Your task to perform on an android device: Open Google Maps Image 0: 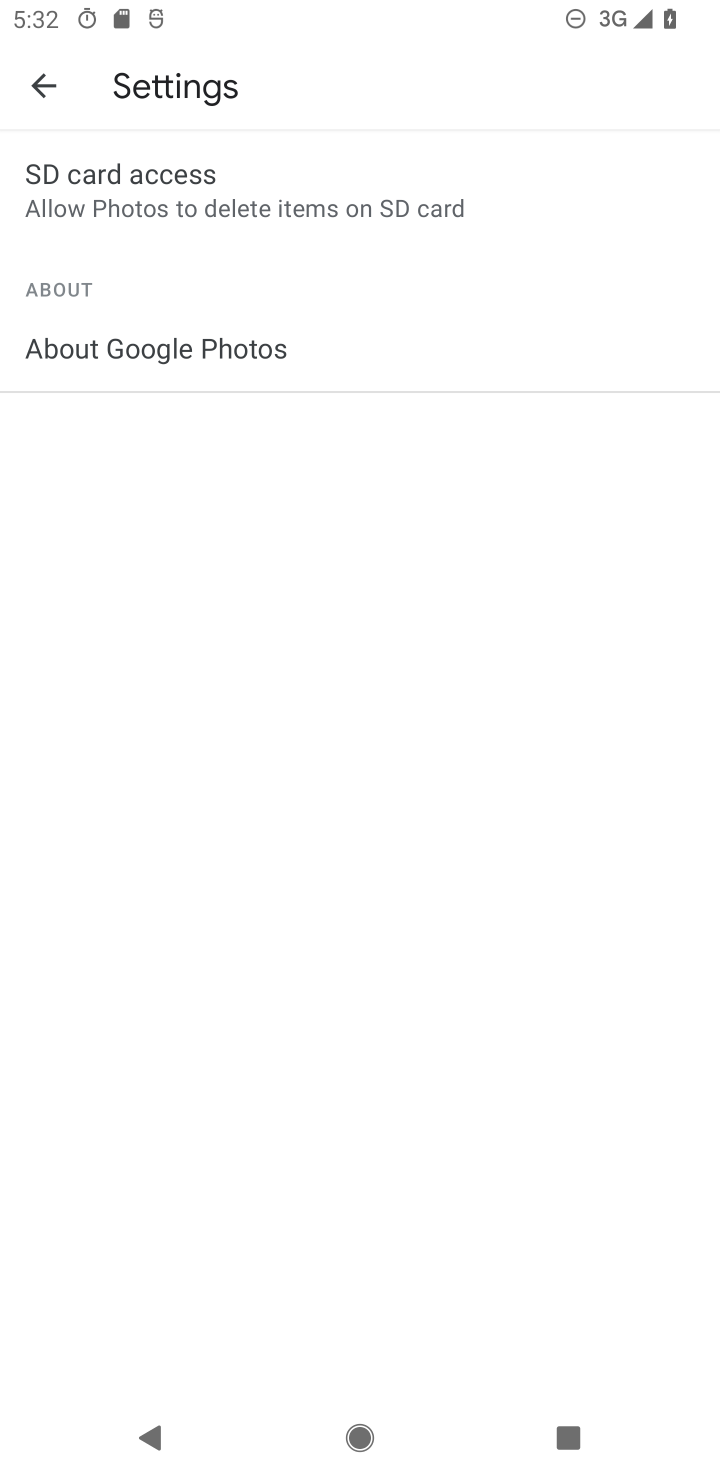
Step 0: click (703, 749)
Your task to perform on an android device: Open Google Maps Image 1: 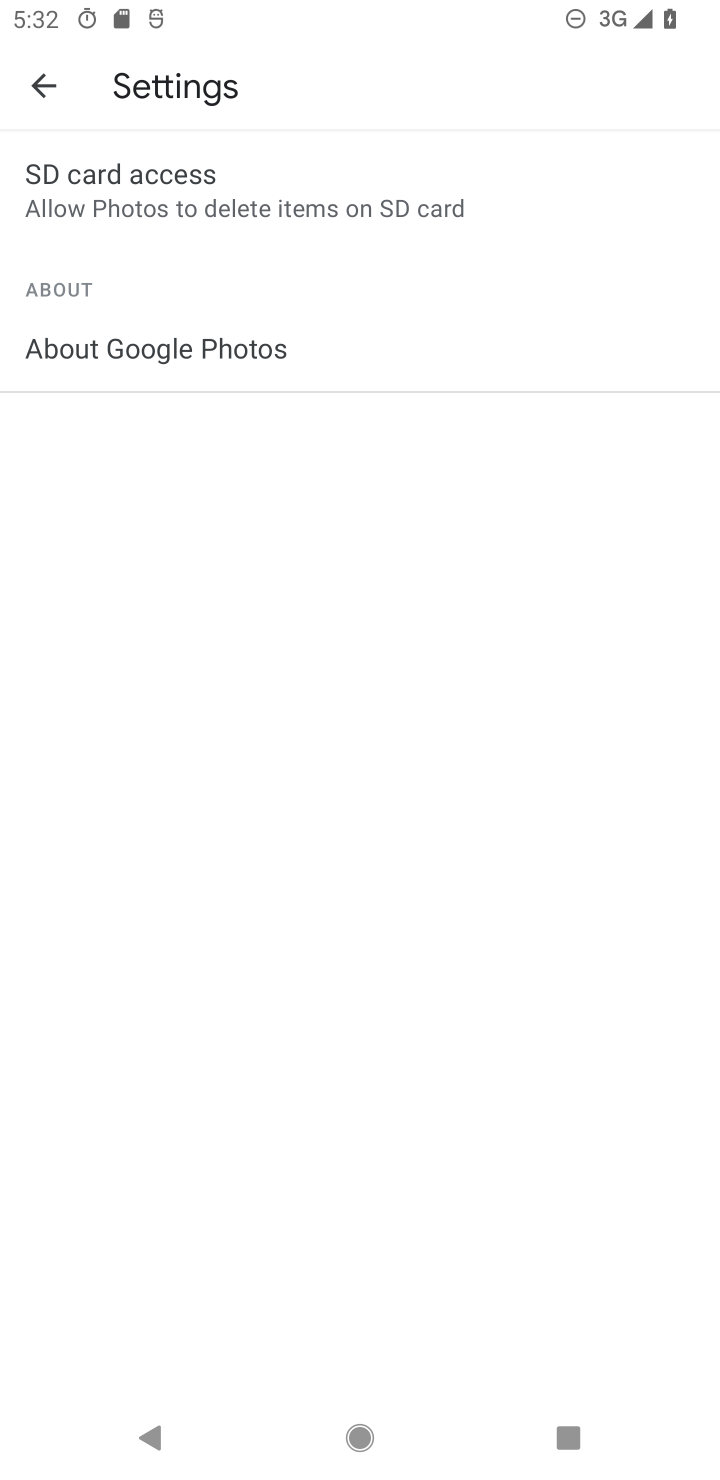
Step 1: press home button
Your task to perform on an android device: Open Google Maps Image 2: 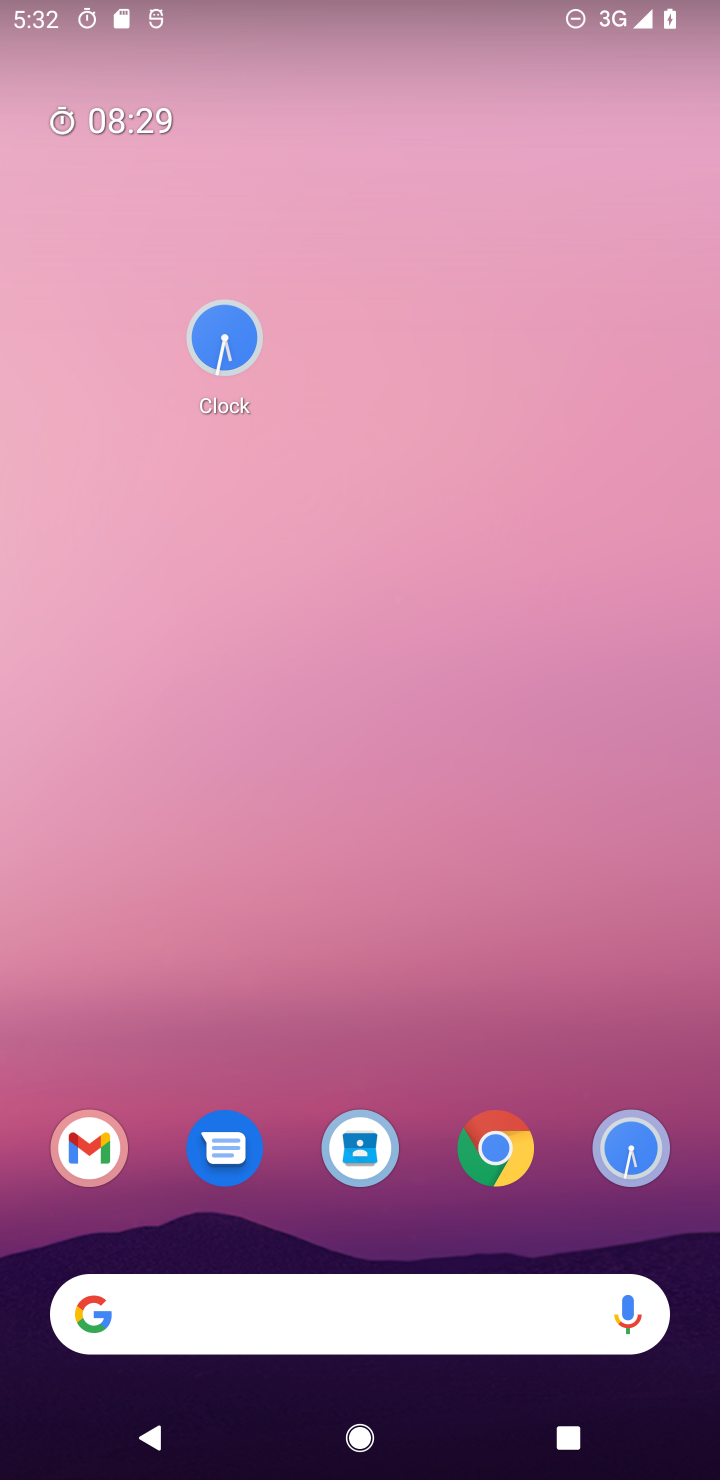
Step 2: drag from (349, 1198) to (387, 373)
Your task to perform on an android device: Open Google Maps Image 3: 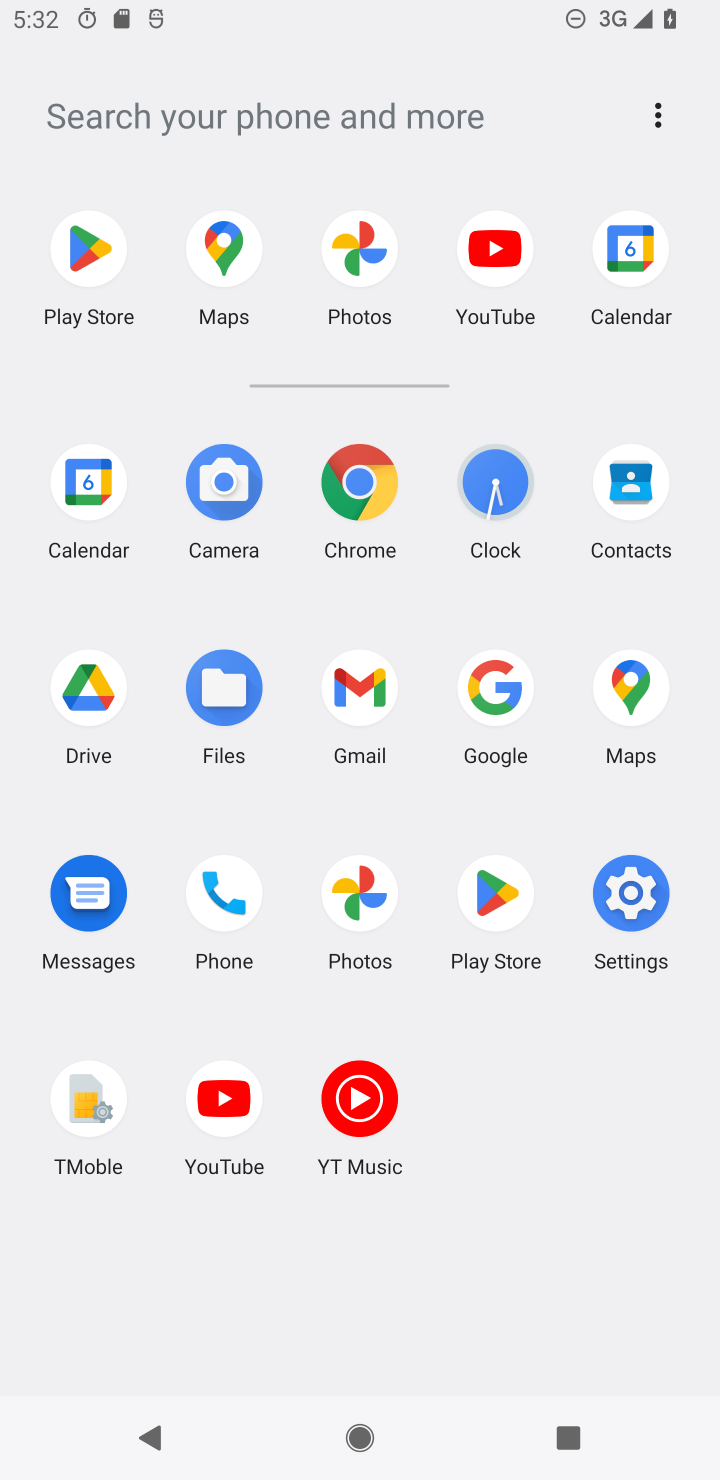
Step 3: click (616, 688)
Your task to perform on an android device: Open Google Maps Image 4: 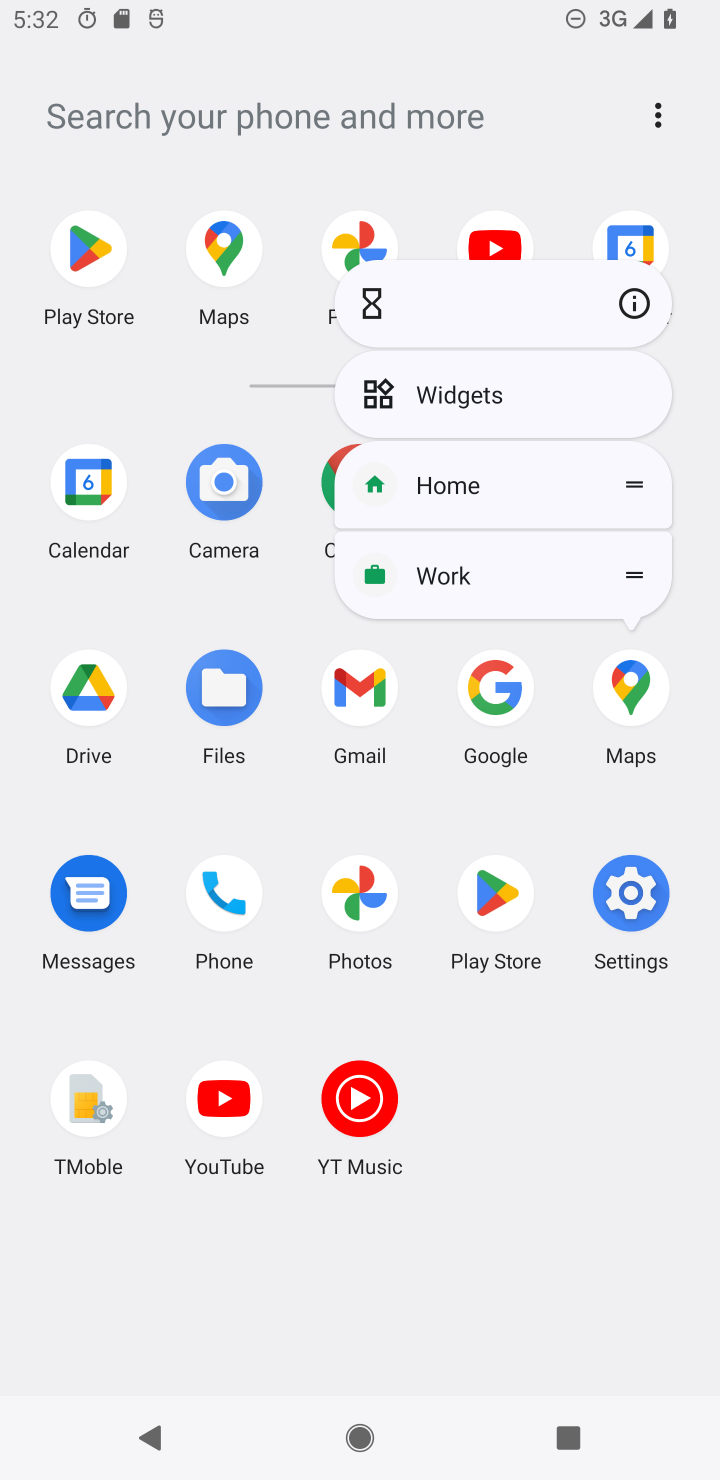
Step 4: click (624, 297)
Your task to perform on an android device: Open Google Maps Image 5: 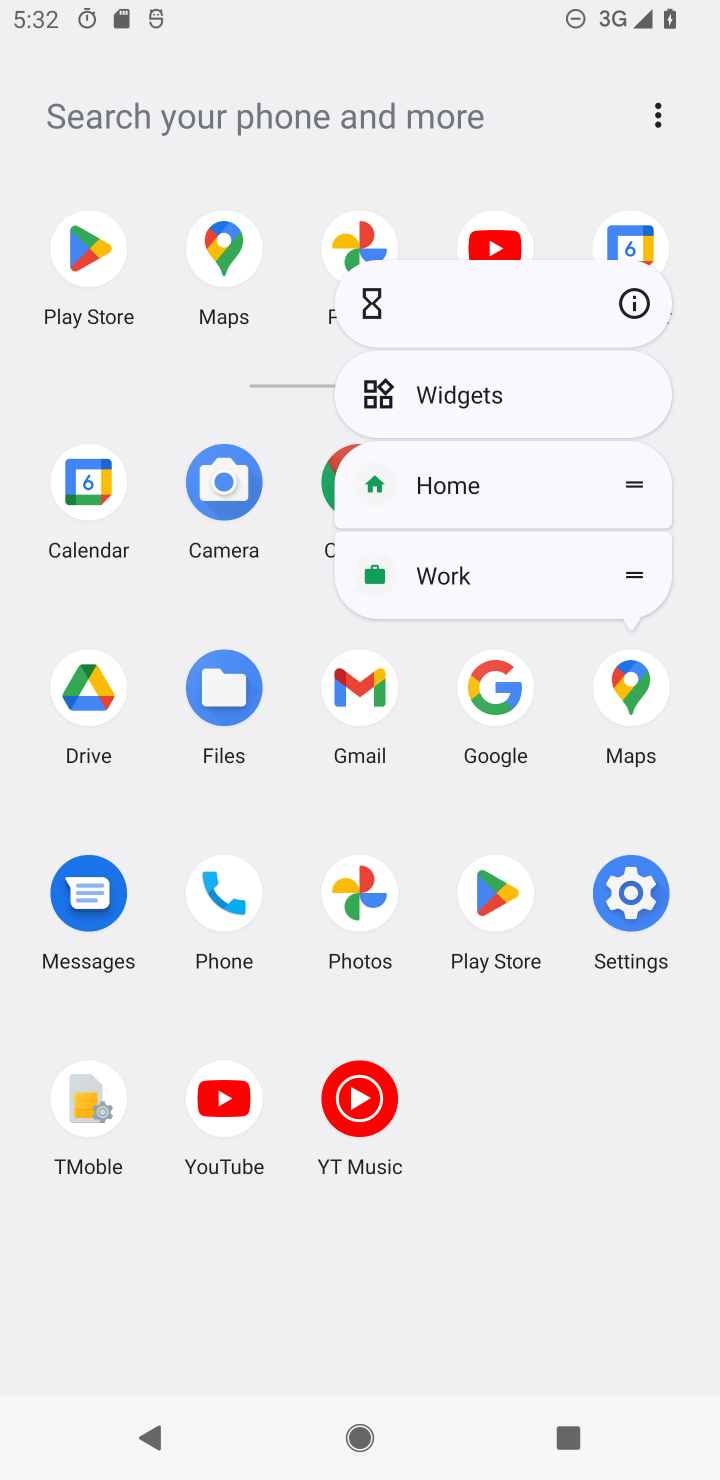
Step 5: click (626, 295)
Your task to perform on an android device: Open Google Maps Image 6: 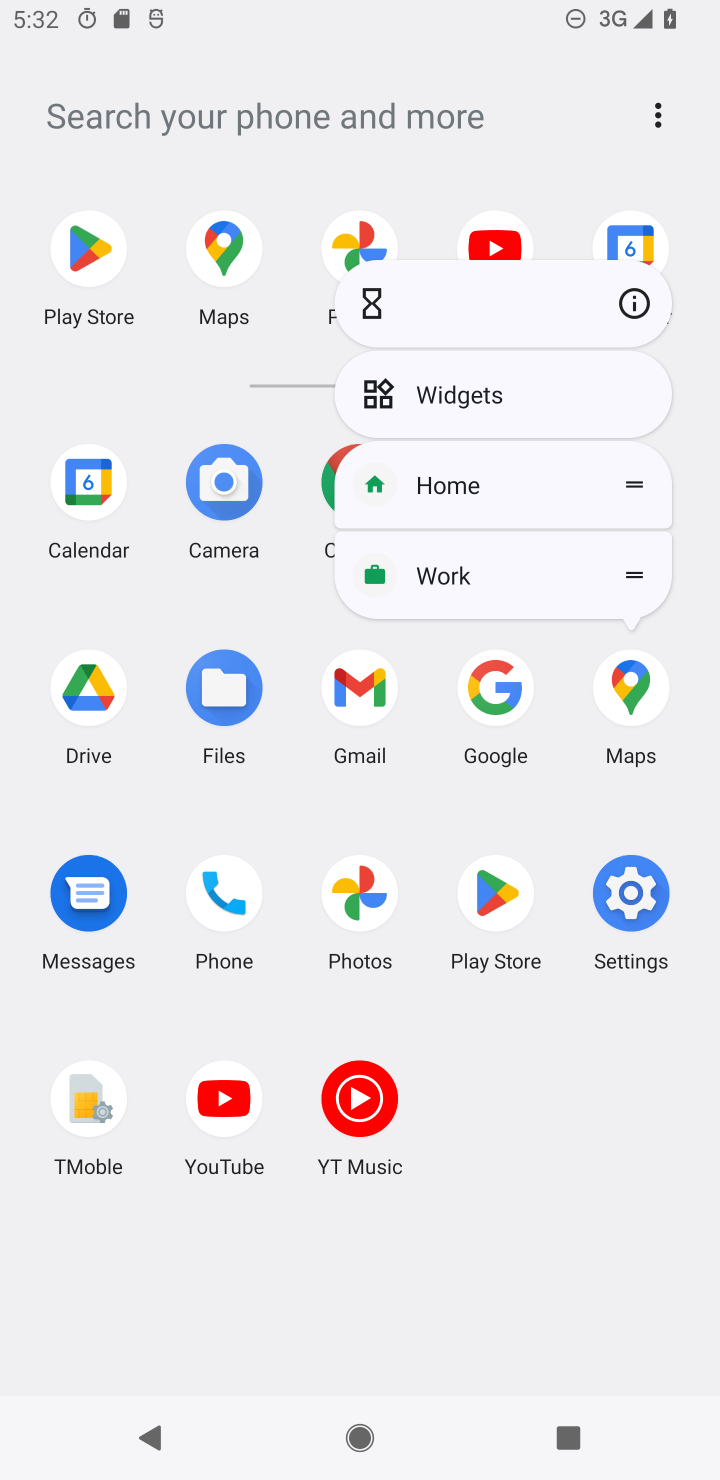
Step 6: click (639, 319)
Your task to perform on an android device: Open Google Maps Image 7: 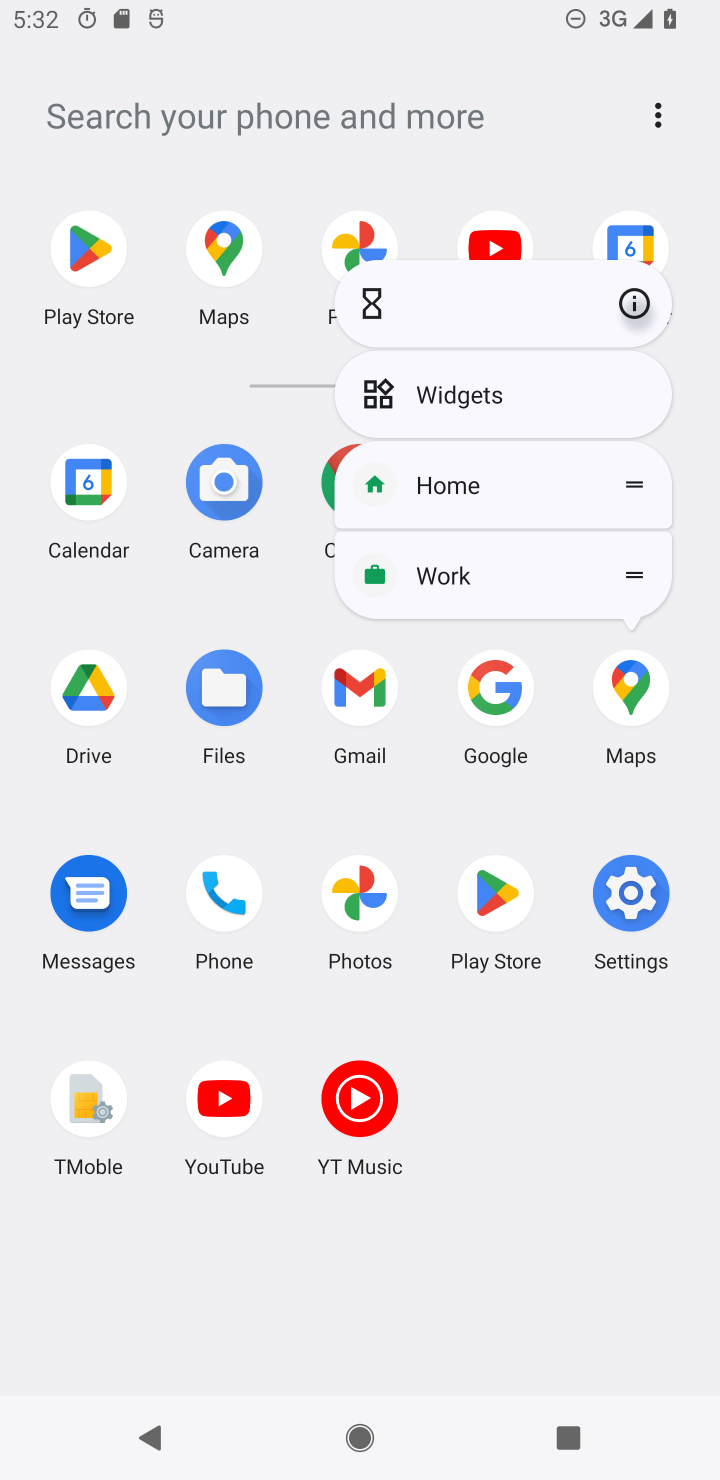
Step 7: click (639, 319)
Your task to perform on an android device: Open Google Maps Image 8: 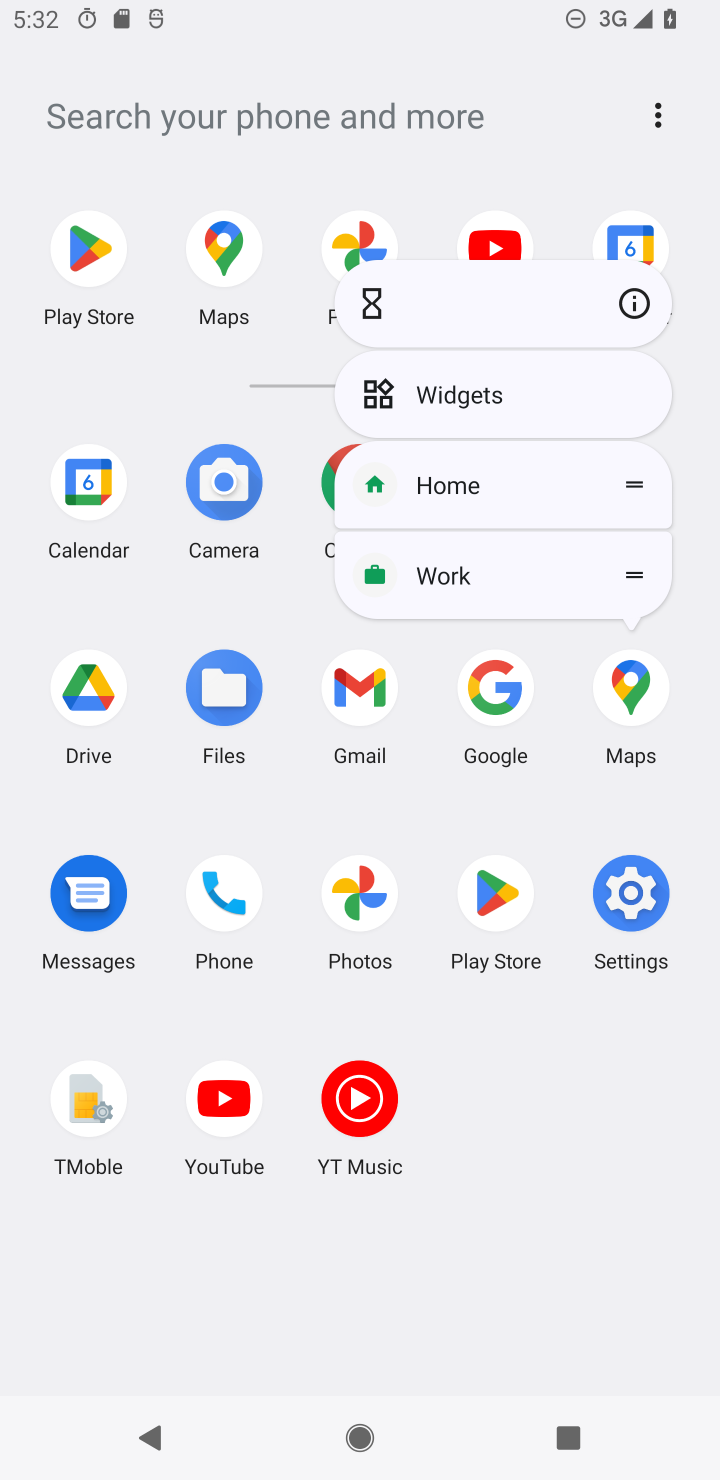
Step 8: click (637, 312)
Your task to perform on an android device: Open Google Maps Image 9: 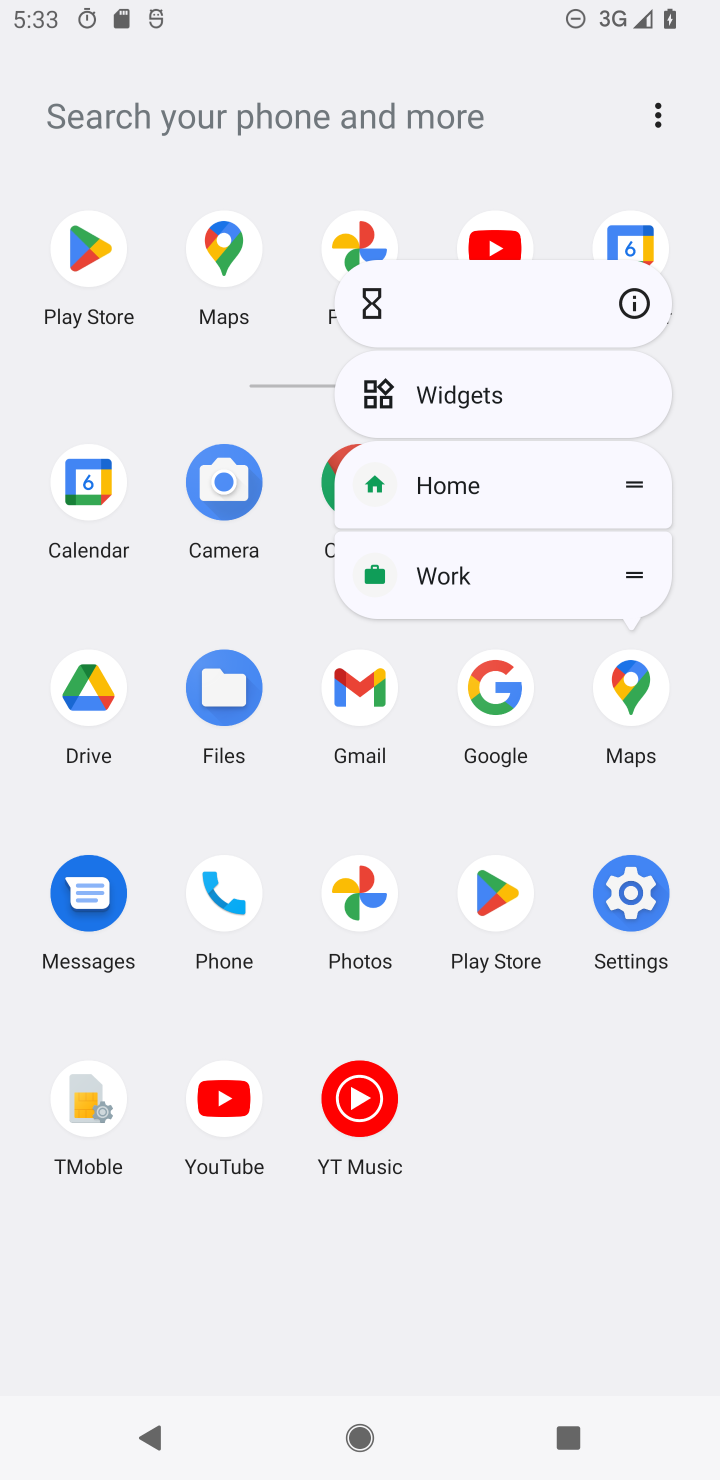
Step 9: click (627, 318)
Your task to perform on an android device: Open Google Maps Image 10: 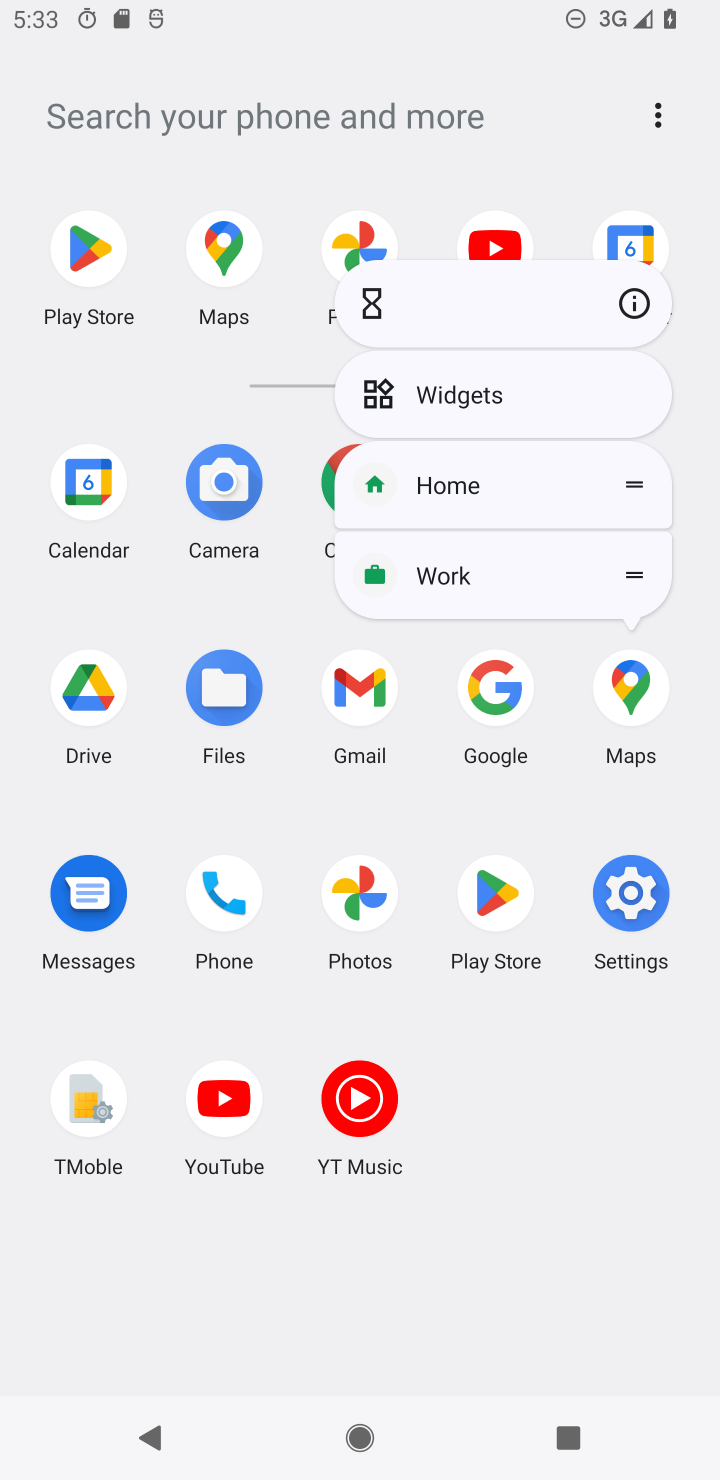
Step 10: click (637, 312)
Your task to perform on an android device: Open Google Maps Image 11: 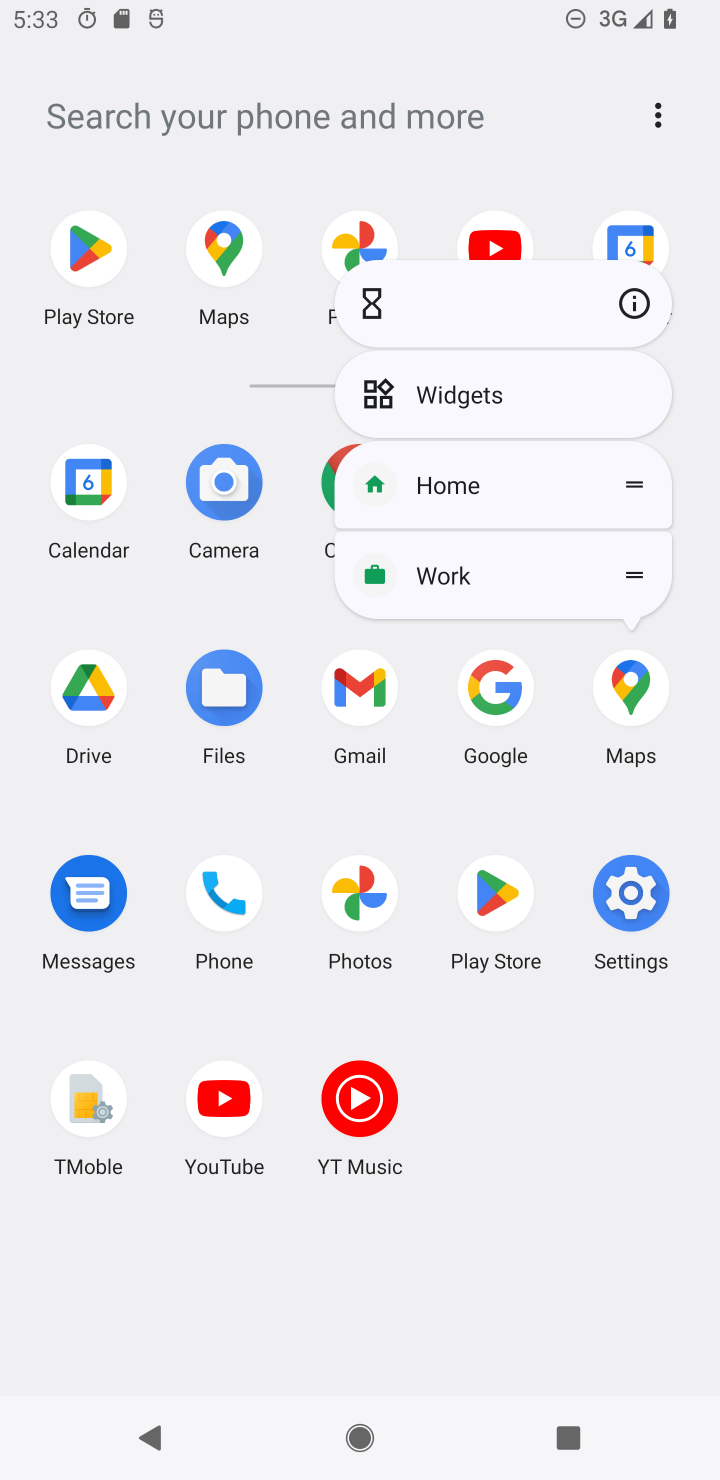
Step 11: click (642, 672)
Your task to perform on an android device: Open Google Maps Image 12: 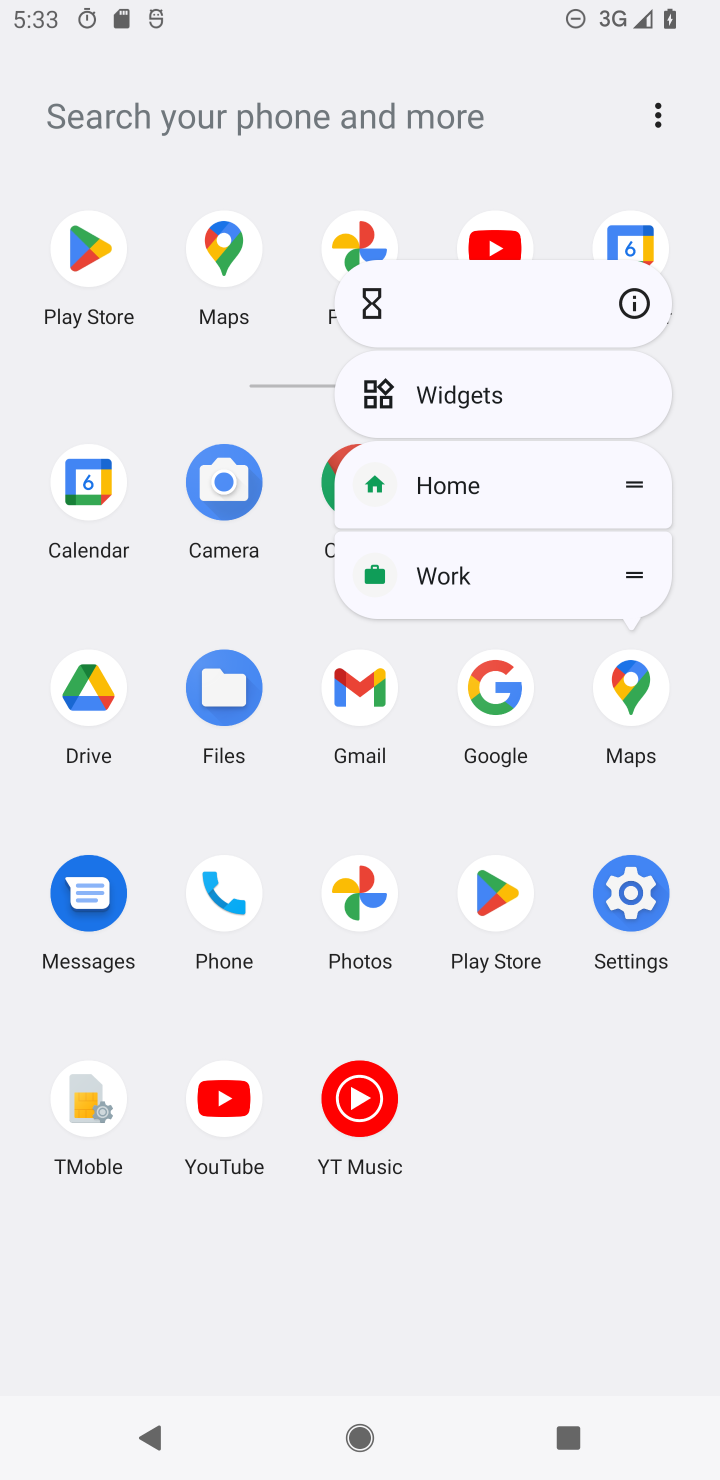
Step 12: click (615, 705)
Your task to perform on an android device: Open Google Maps Image 13: 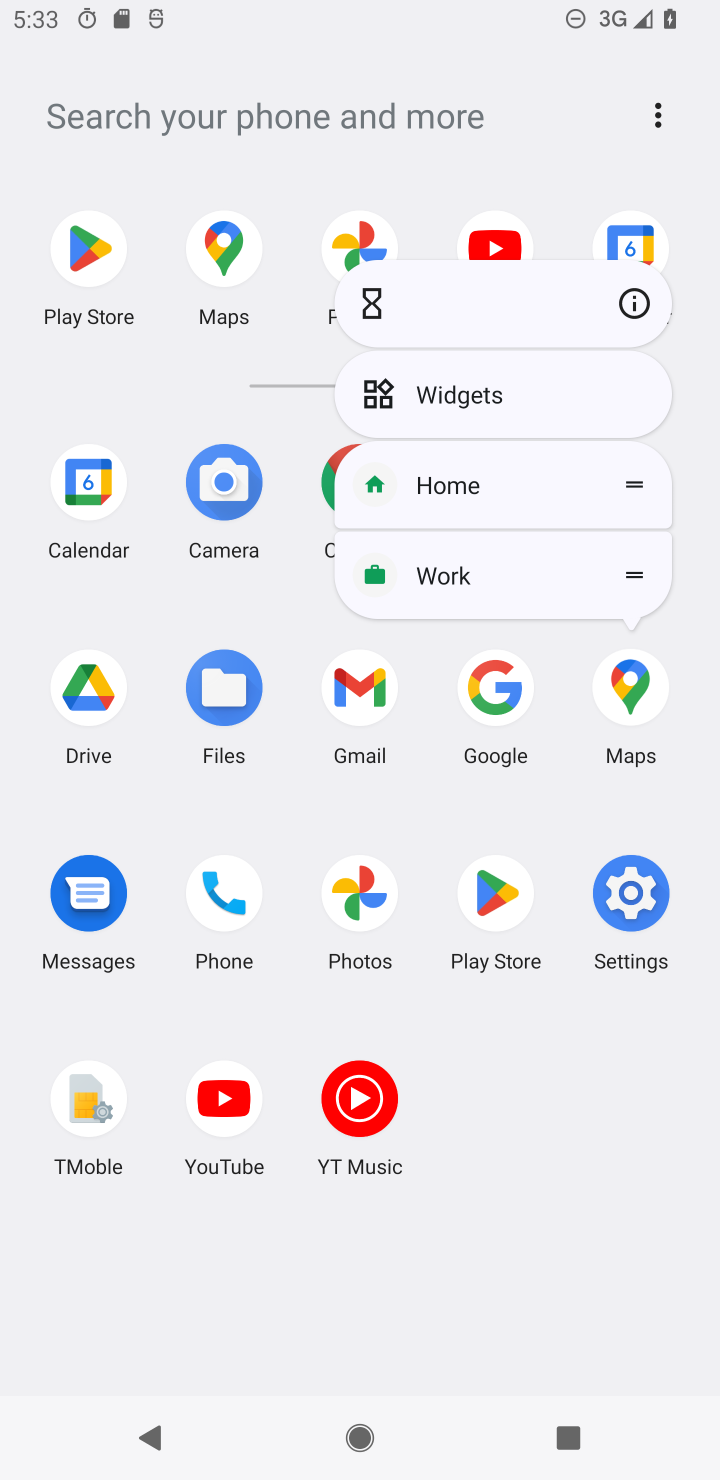
Step 13: click (611, 696)
Your task to perform on an android device: Open Google Maps Image 14: 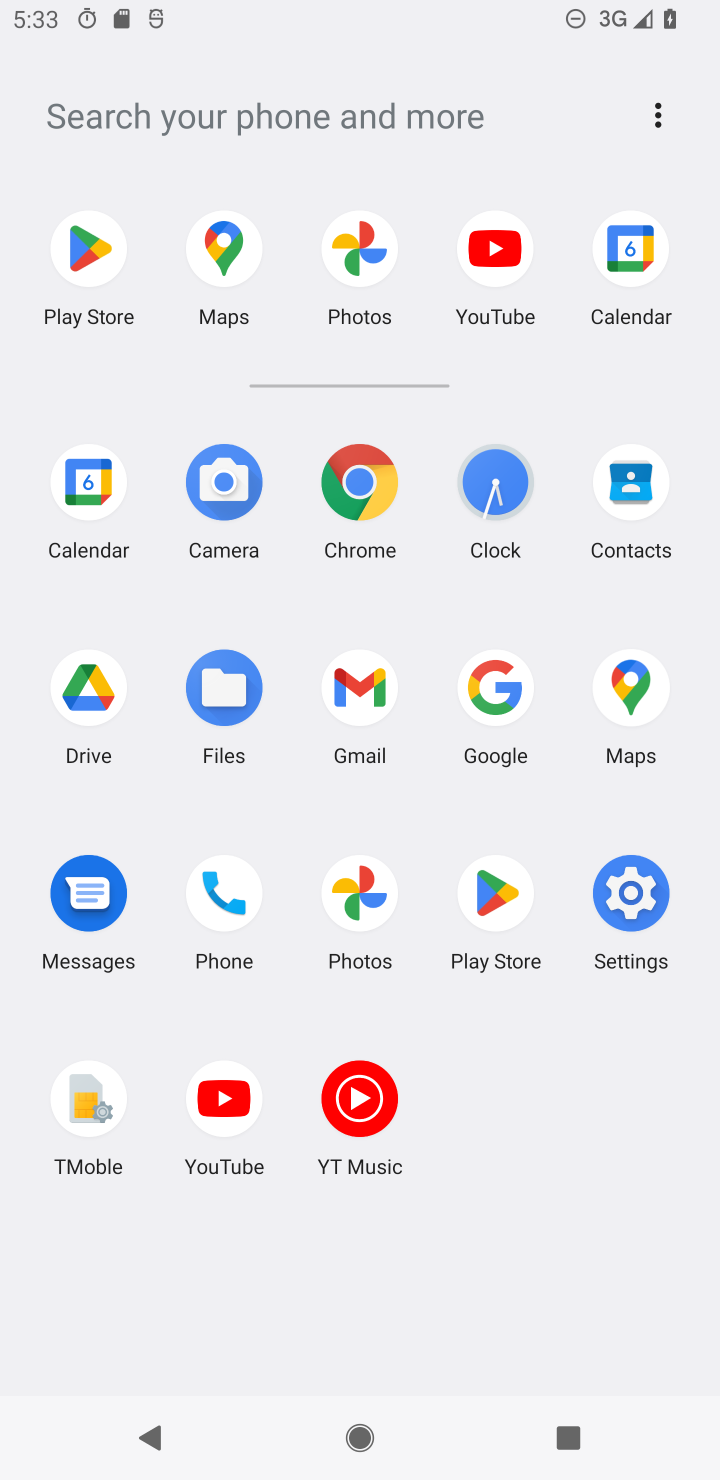
Step 14: click (604, 690)
Your task to perform on an android device: Open Google Maps Image 15: 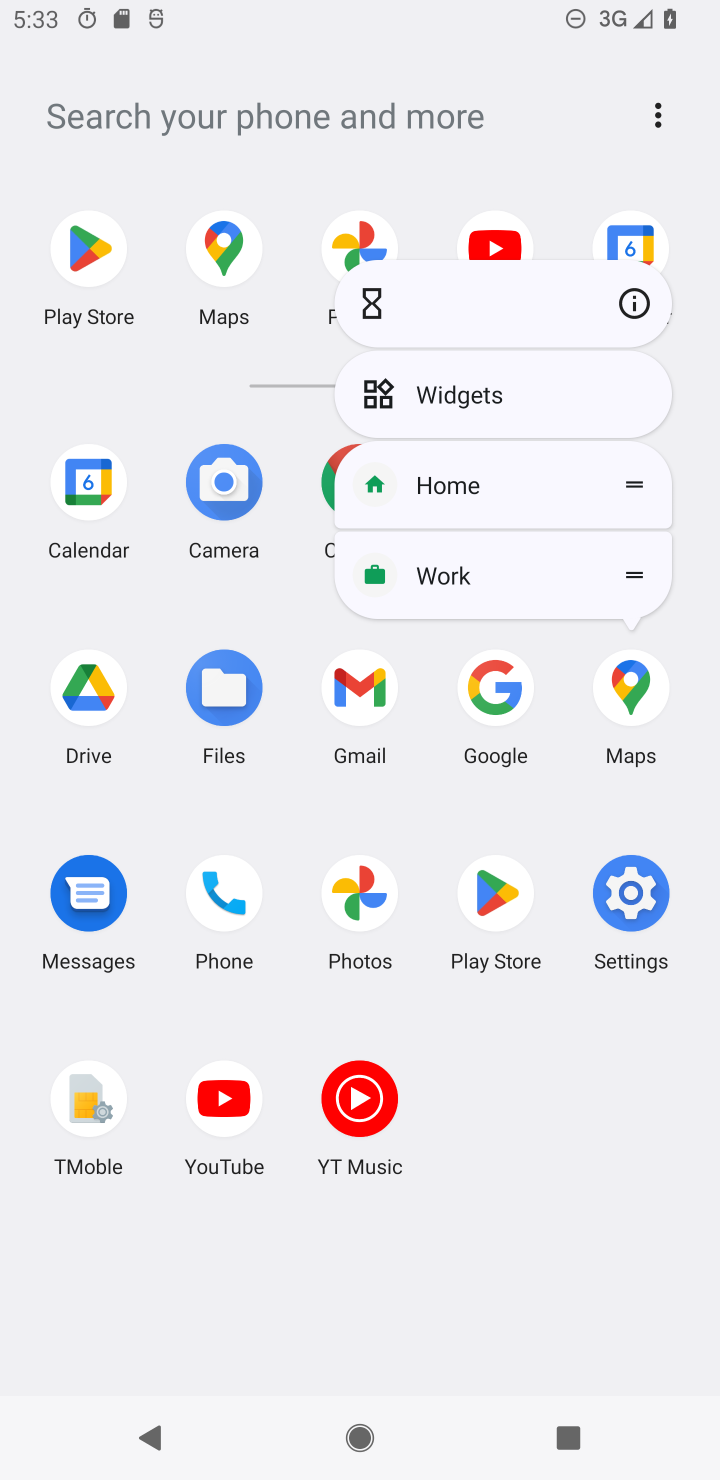
Step 15: click (631, 309)
Your task to perform on an android device: Open Google Maps Image 16: 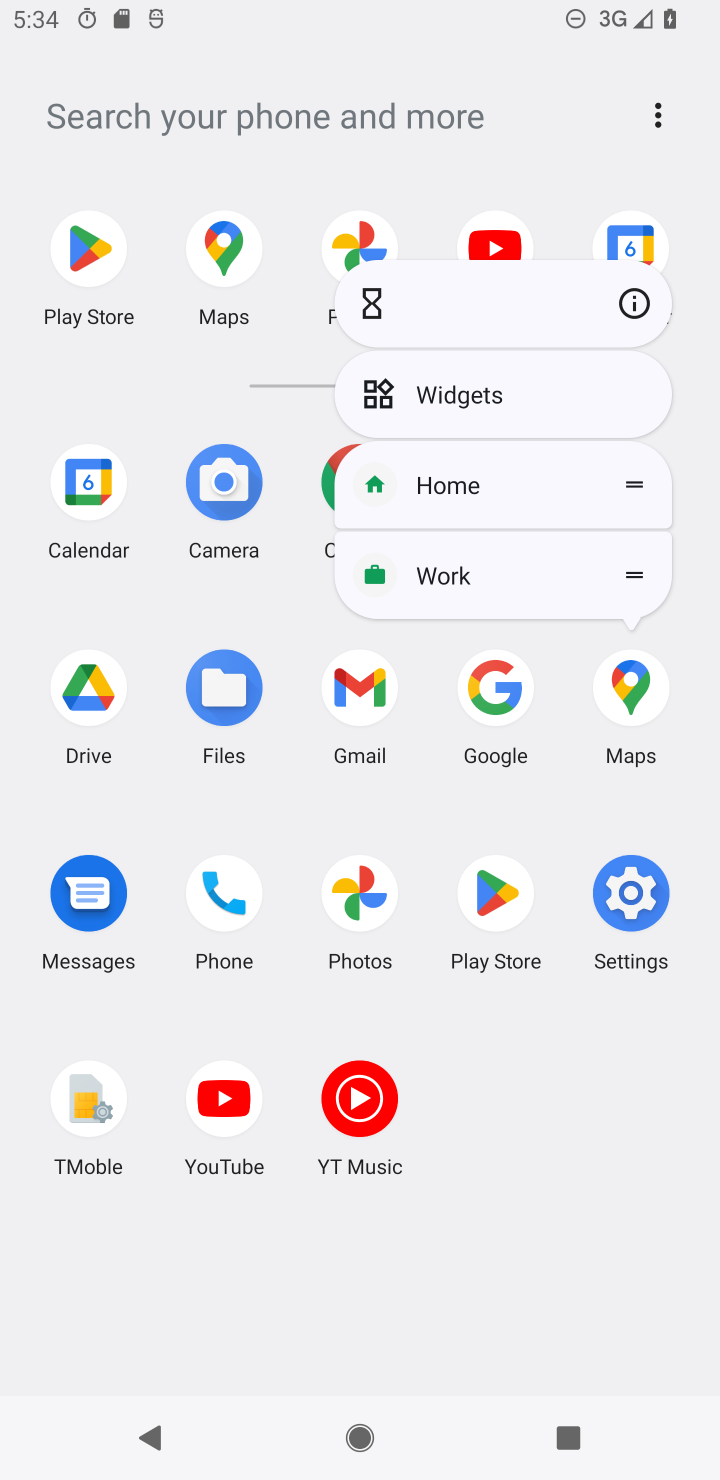
Step 16: click (639, 679)
Your task to perform on an android device: Open Google Maps Image 17: 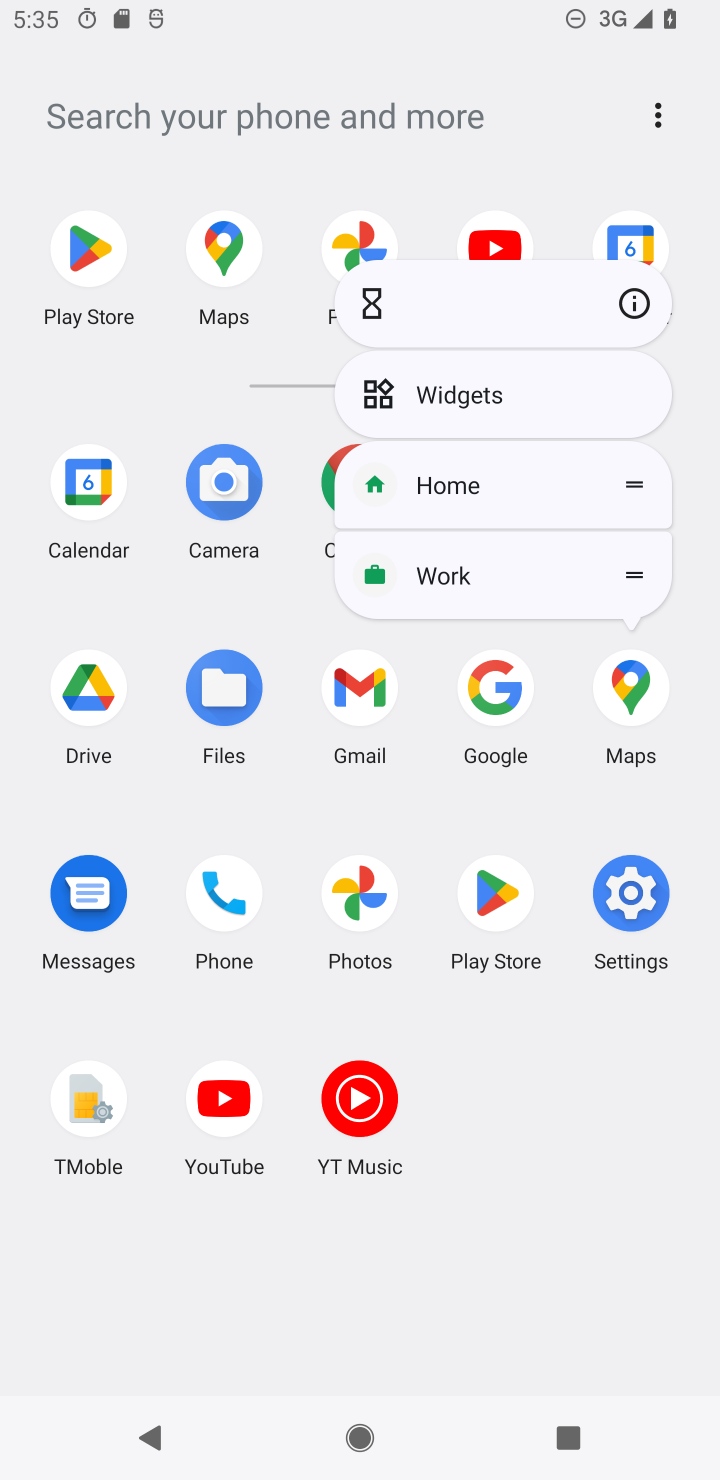
Step 17: click (610, 693)
Your task to perform on an android device: Open Google Maps Image 18: 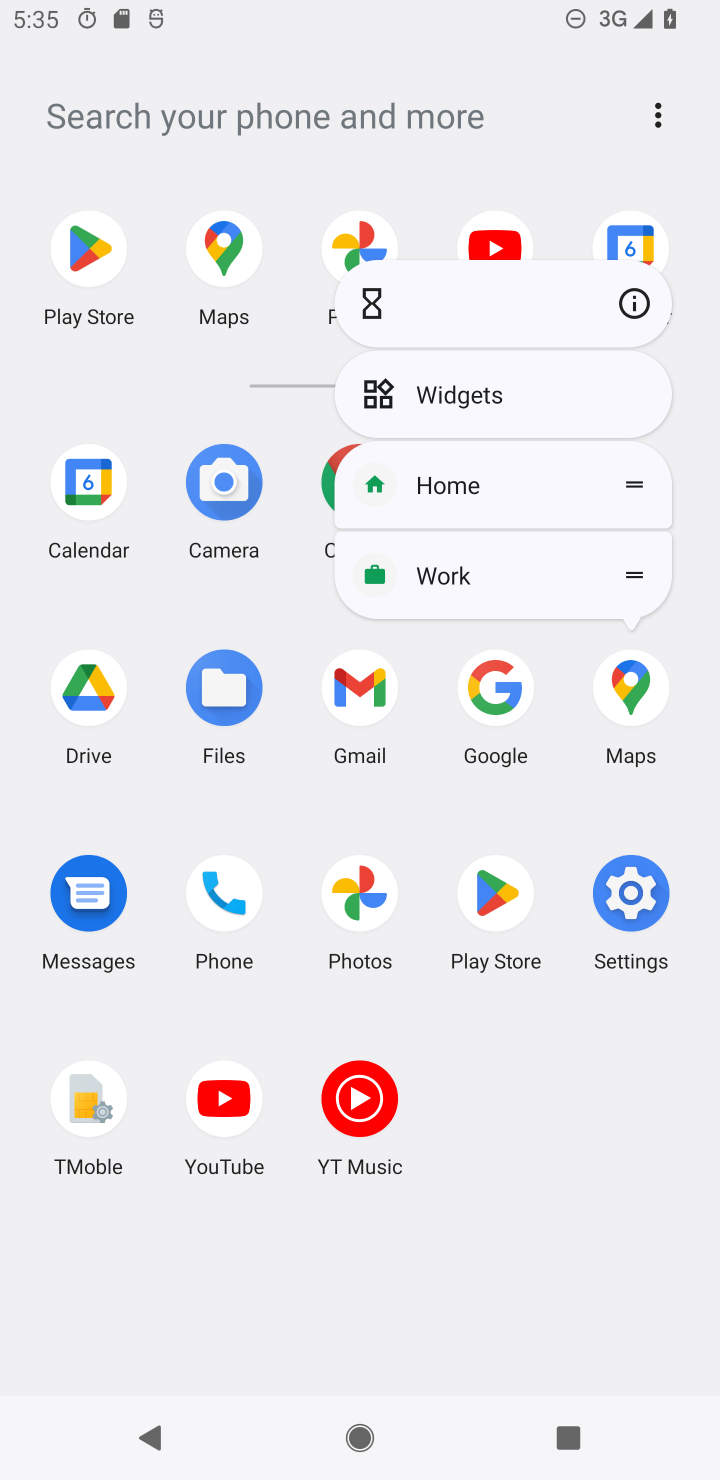
Step 18: click (648, 659)
Your task to perform on an android device: Open Google Maps Image 19: 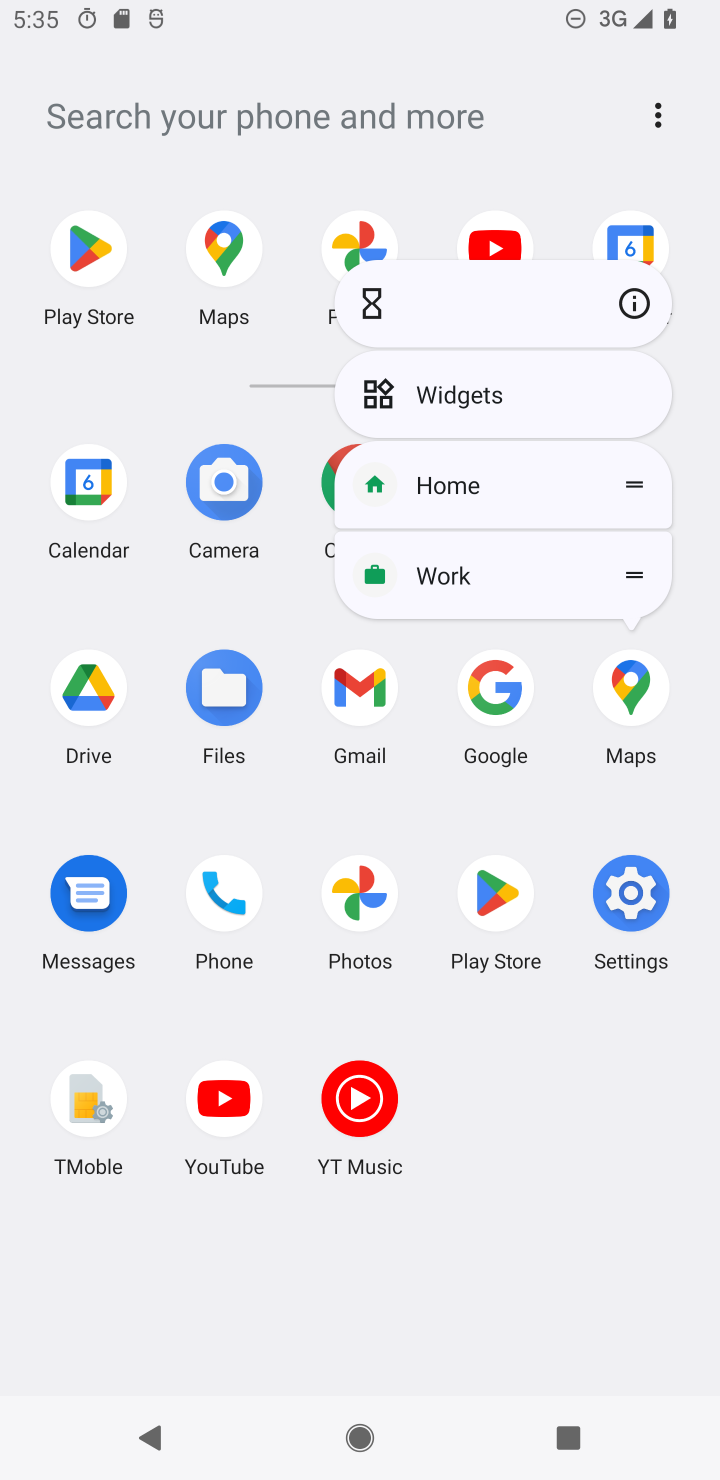
Step 19: click (644, 667)
Your task to perform on an android device: Open Google Maps Image 20: 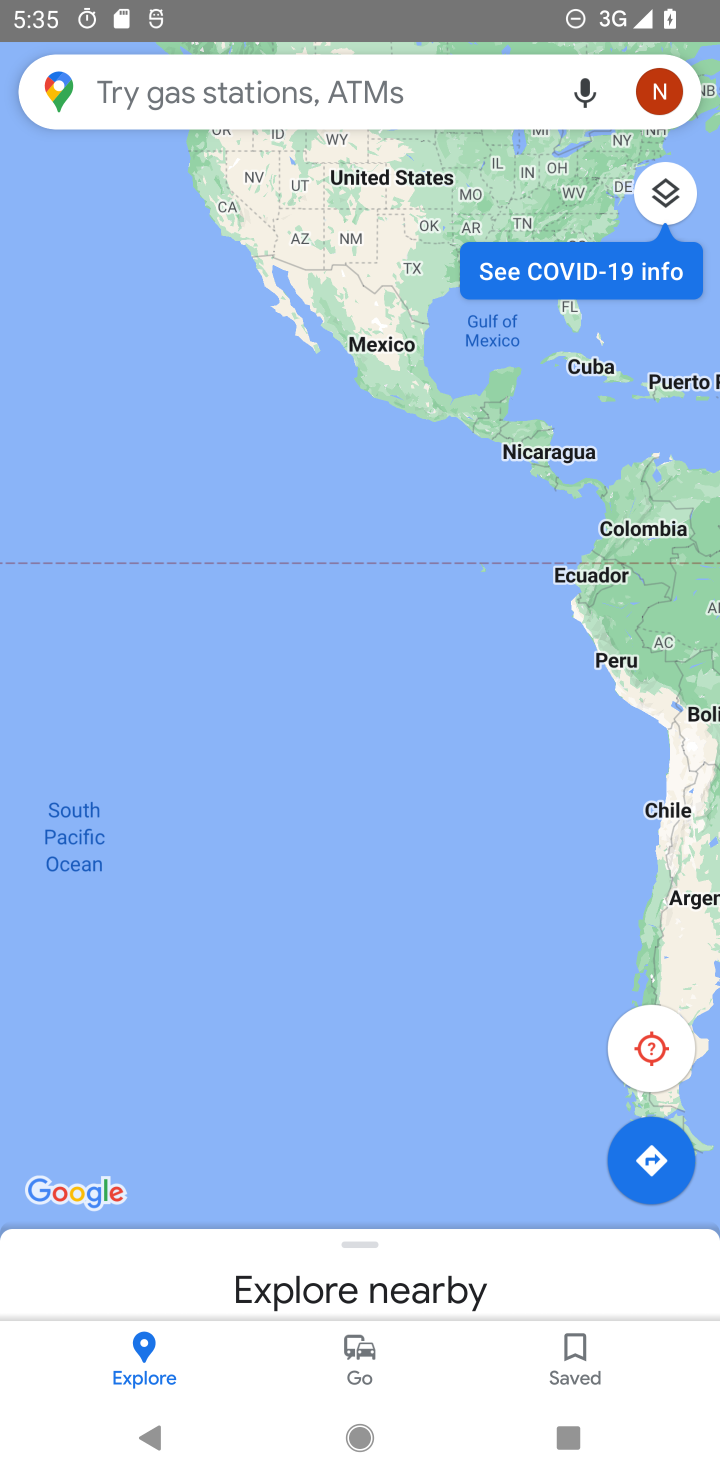
Step 20: task complete